Your task to perform on an android device: Go to wifi settings Image 0: 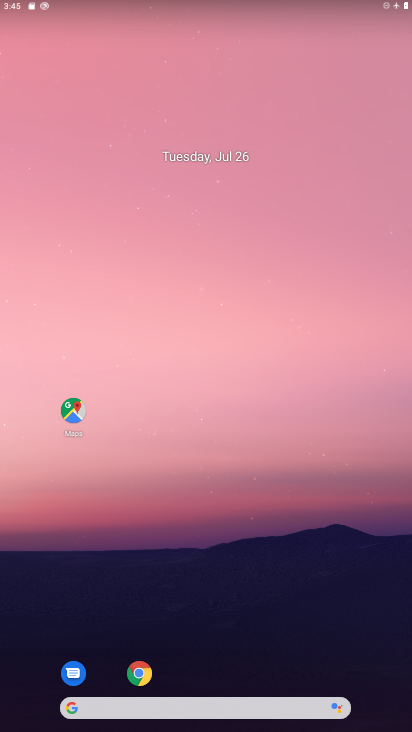
Step 0: drag from (207, 657) to (199, 0)
Your task to perform on an android device: Go to wifi settings Image 1: 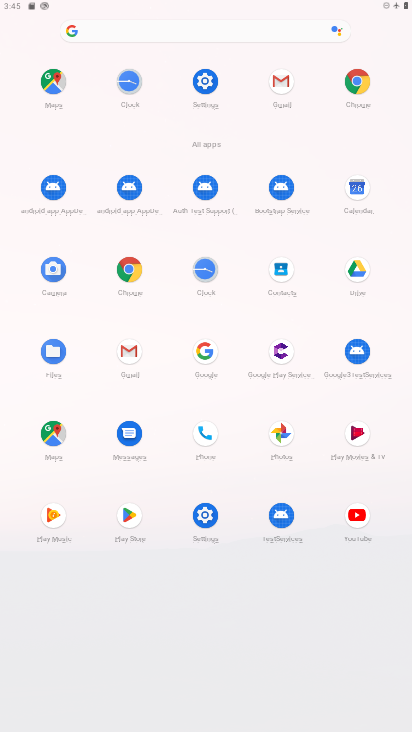
Step 1: click (203, 92)
Your task to perform on an android device: Go to wifi settings Image 2: 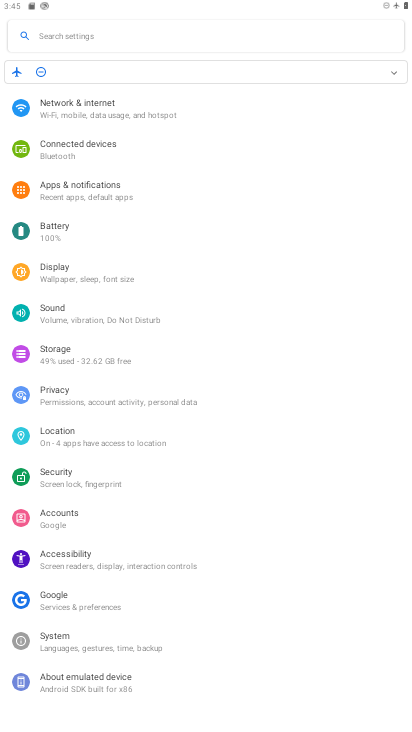
Step 2: click (67, 114)
Your task to perform on an android device: Go to wifi settings Image 3: 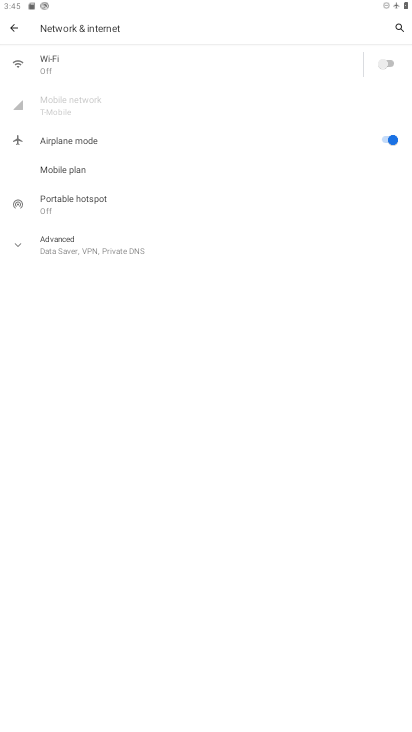
Step 3: click (33, 62)
Your task to perform on an android device: Go to wifi settings Image 4: 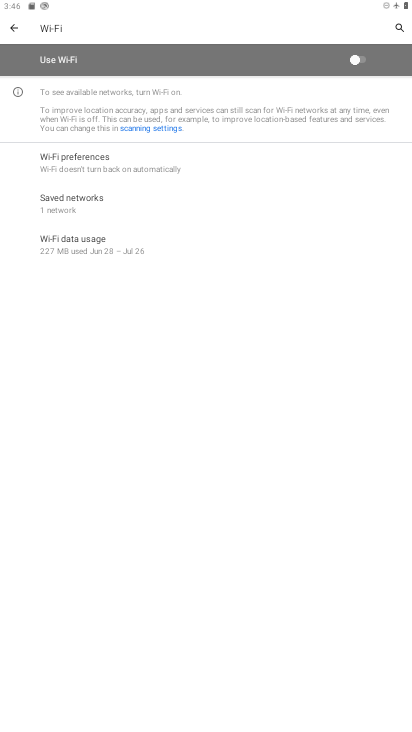
Step 4: click (52, 61)
Your task to perform on an android device: Go to wifi settings Image 5: 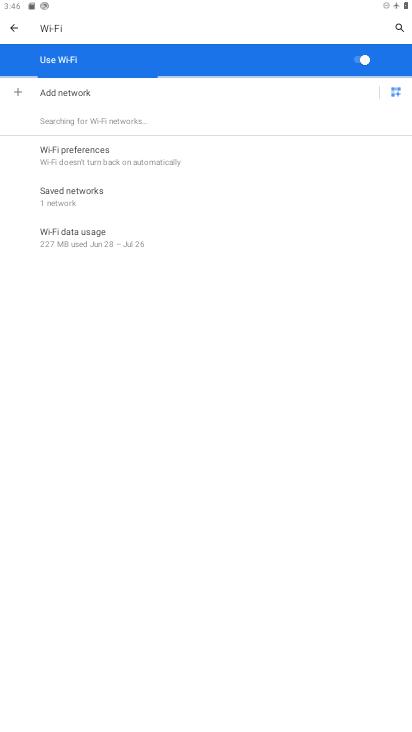
Step 5: task complete